Your task to perform on an android device: open app "Skype" Image 0: 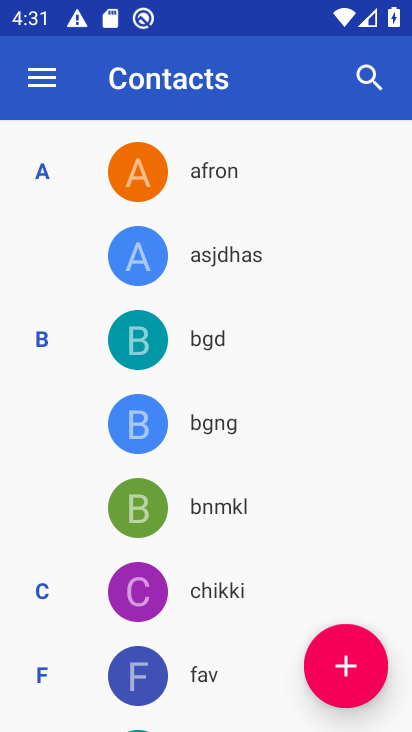
Step 0: press home button
Your task to perform on an android device: open app "Skype" Image 1: 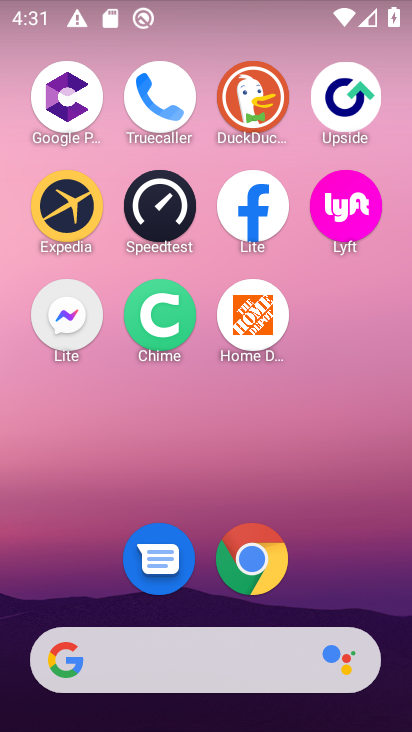
Step 1: drag from (147, 445) to (349, 571)
Your task to perform on an android device: open app "Skype" Image 2: 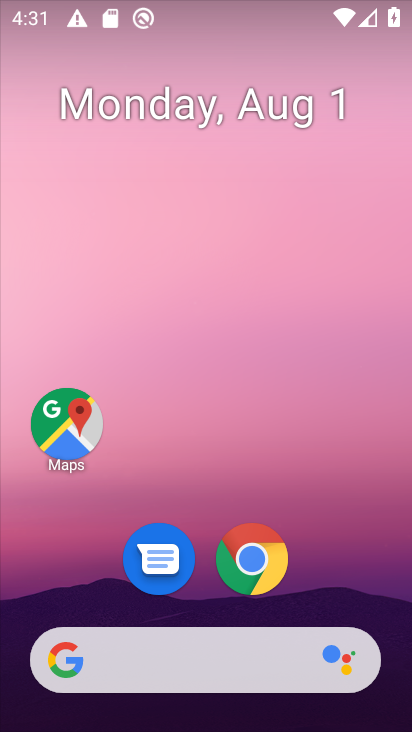
Step 2: drag from (198, 596) to (285, 38)
Your task to perform on an android device: open app "Skype" Image 3: 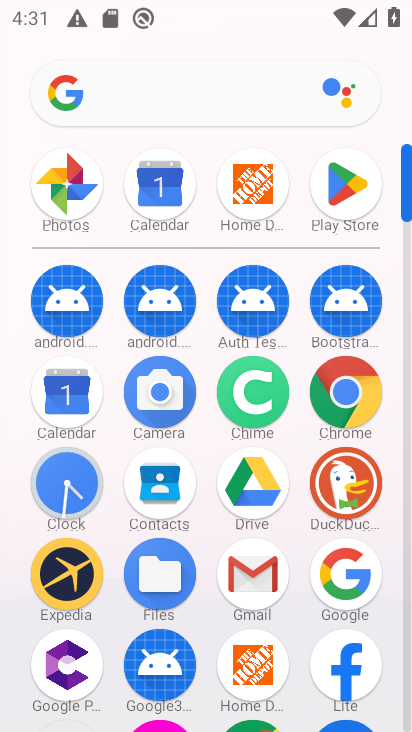
Step 3: click (387, 212)
Your task to perform on an android device: open app "Skype" Image 4: 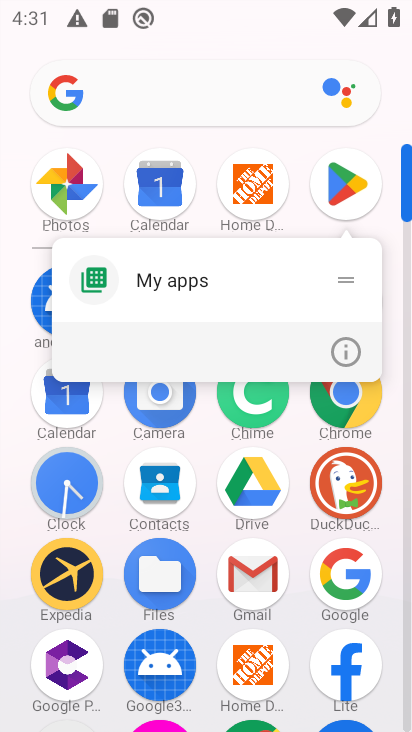
Step 4: click (357, 176)
Your task to perform on an android device: open app "Skype" Image 5: 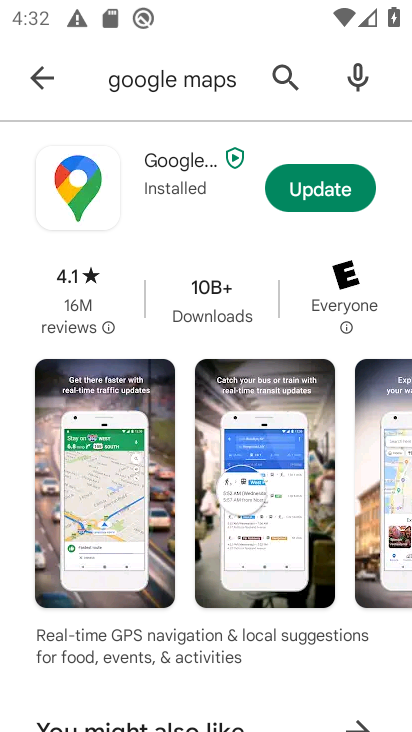
Step 5: click (189, 78)
Your task to perform on an android device: open app "Skype" Image 6: 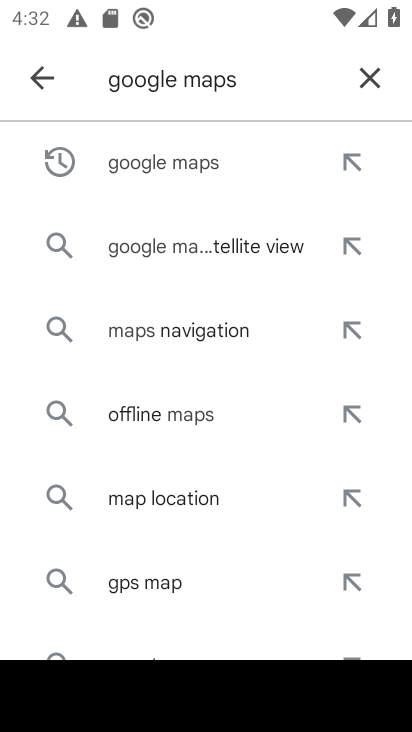
Step 6: click (375, 77)
Your task to perform on an android device: open app "Skype" Image 7: 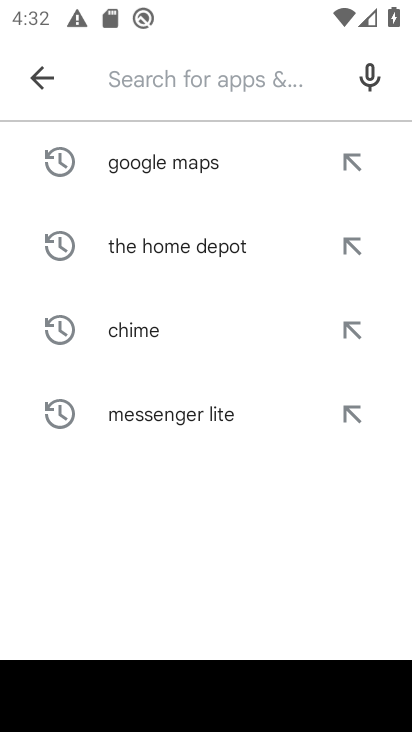
Step 7: type "skype"
Your task to perform on an android device: open app "Skype" Image 8: 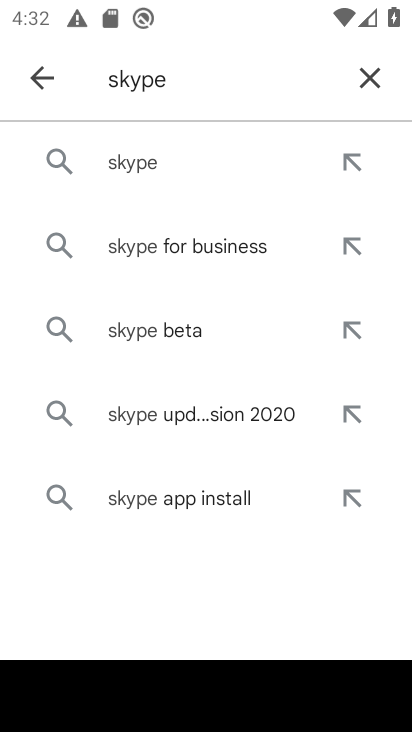
Step 8: click (169, 162)
Your task to perform on an android device: open app "Skype" Image 9: 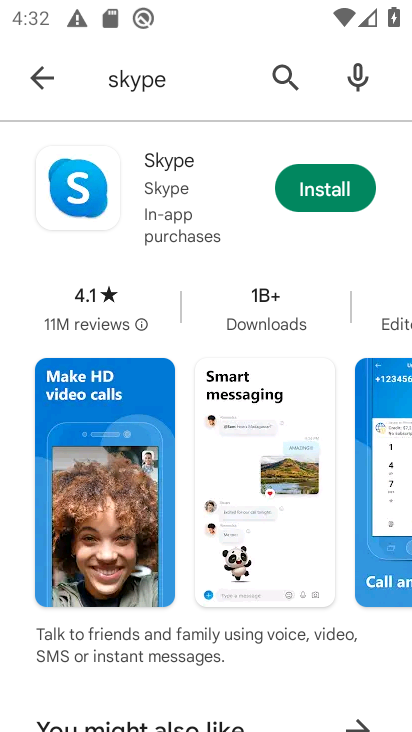
Step 9: task complete